Your task to perform on an android device: Go to Android settings Image 0: 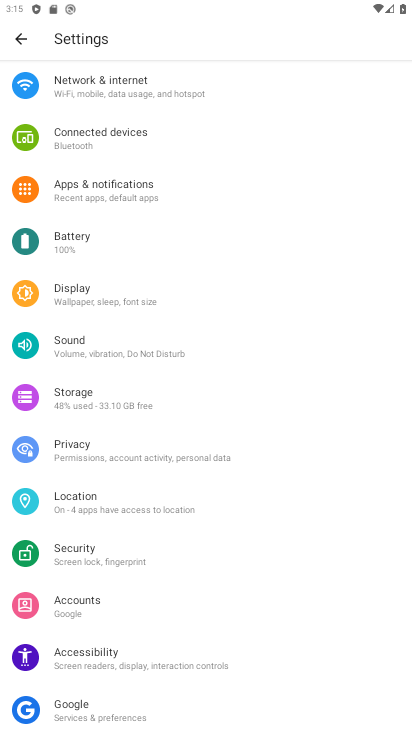
Step 0: task complete